Your task to perform on an android device: turn off data saver in the chrome app Image 0: 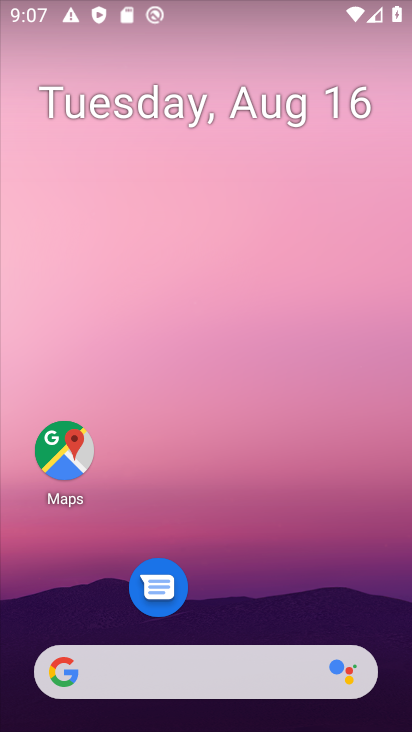
Step 0: drag from (220, 637) to (197, 126)
Your task to perform on an android device: turn off data saver in the chrome app Image 1: 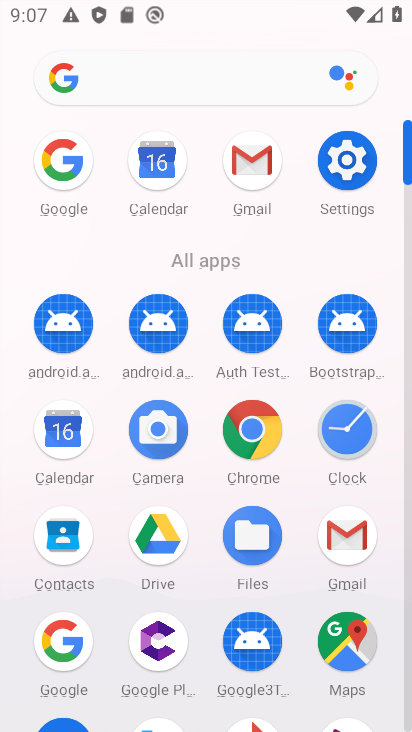
Step 1: click (235, 440)
Your task to perform on an android device: turn off data saver in the chrome app Image 2: 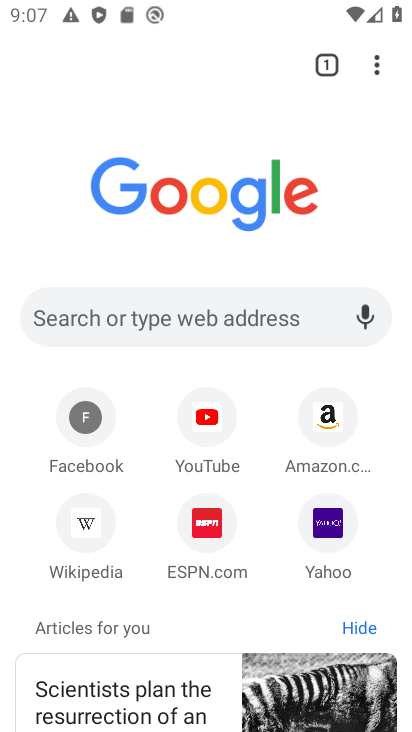
Step 2: click (376, 61)
Your task to perform on an android device: turn off data saver in the chrome app Image 3: 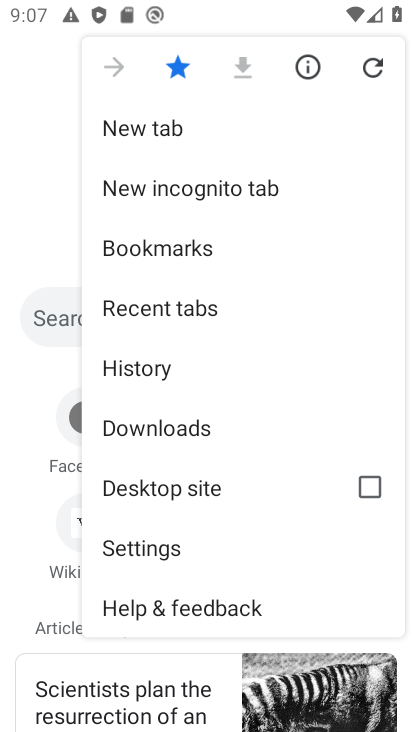
Step 3: click (144, 550)
Your task to perform on an android device: turn off data saver in the chrome app Image 4: 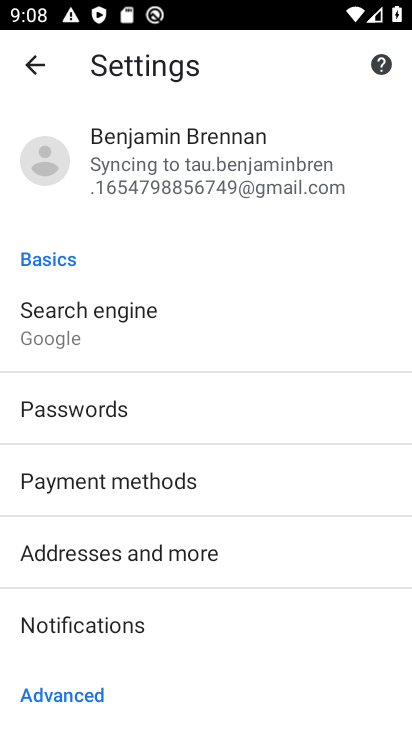
Step 4: drag from (234, 587) to (179, 1)
Your task to perform on an android device: turn off data saver in the chrome app Image 5: 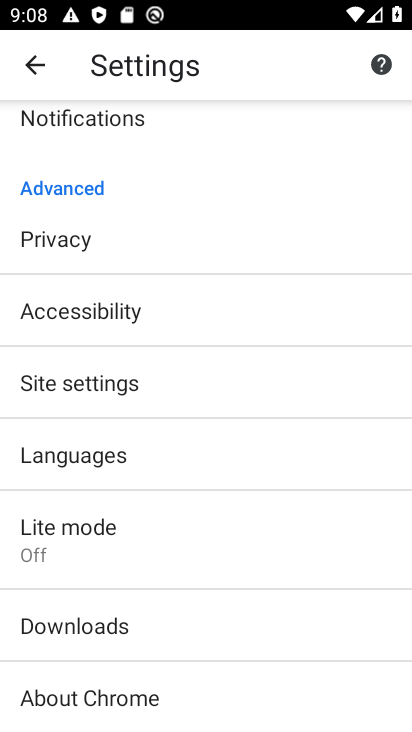
Step 5: click (35, 538)
Your task to perform on an android device: turn off data saver in the chrome app Image 6: 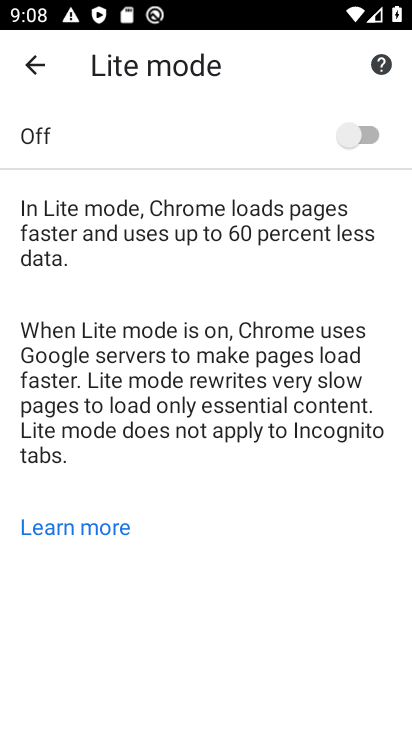
Step 6: task complete